Your task to perform on an android device: check android version Image 0: 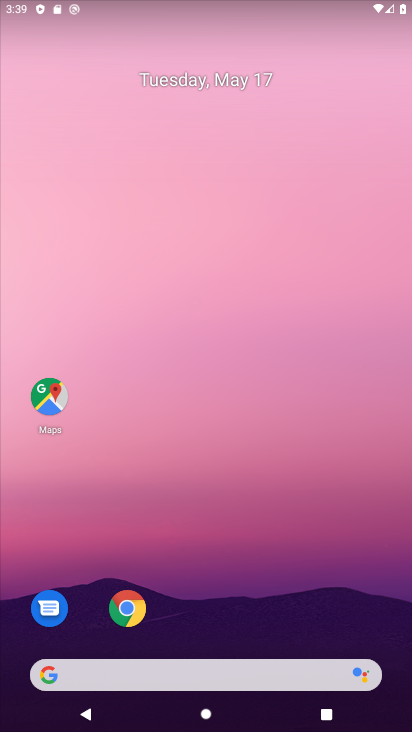
Step 0: click (130, 613)
Your task to perform on an android device: check android version Image 1: 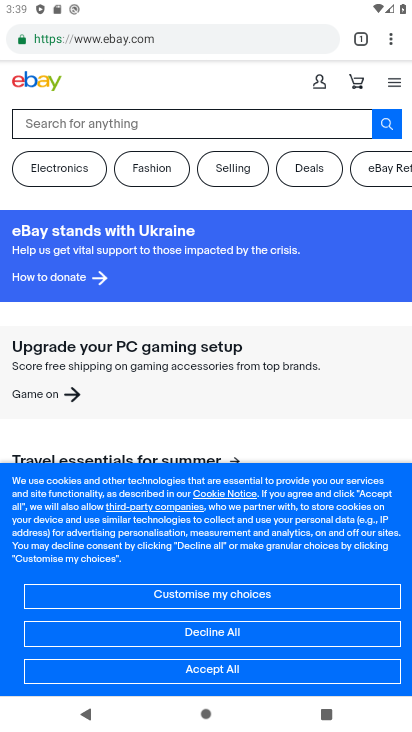
Step 1: press home button
Your task to perform on an android device: check android version Image 2: 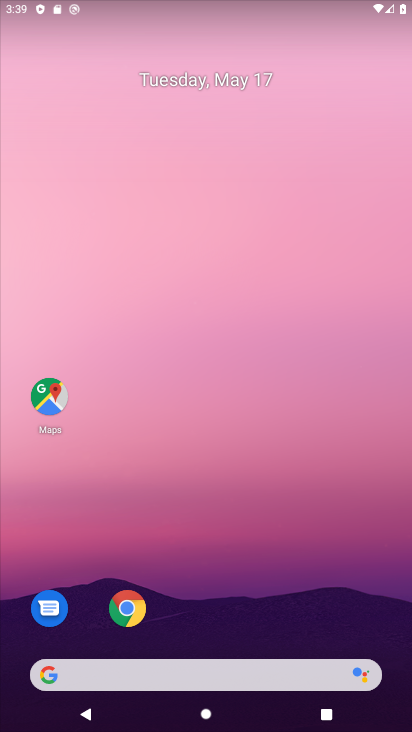
Step 2: drag from (208, 662) to (265, 209)
Your task to perform on an android device: check android version Image 3: 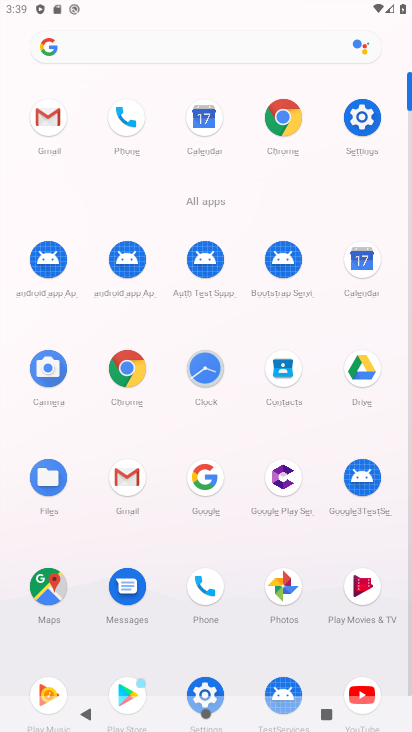
Step 3: click (356, 122)
Your task to perform on an android device: check android version Image 4: 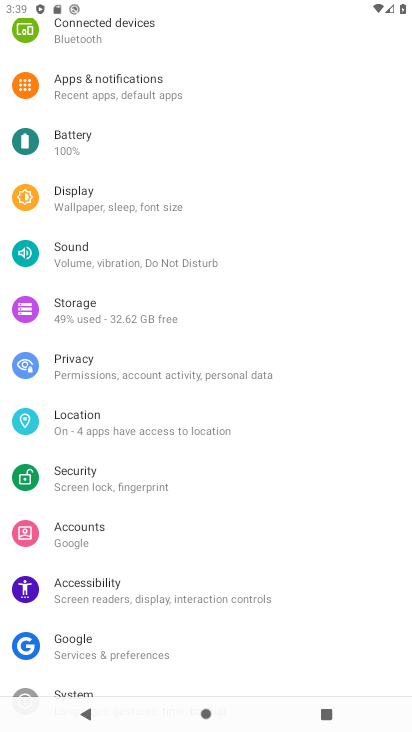
Step 4: drag from (181, 675) to (235, 283)
Your task to perform on an android device: check android version Image 5: 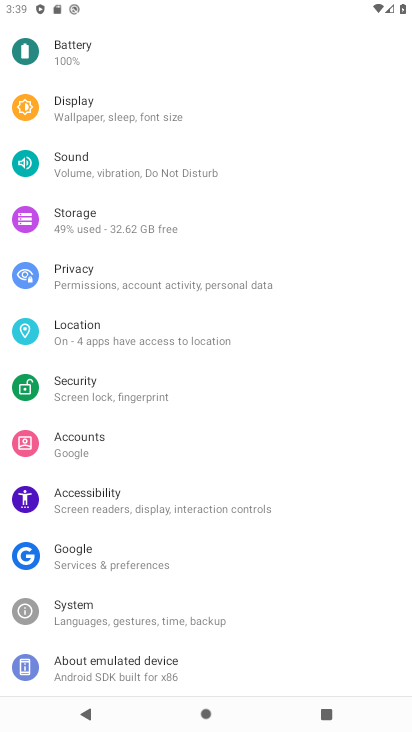
Step 5: click (122, 655)
Your task to perform on an android device: check android version Image 6: 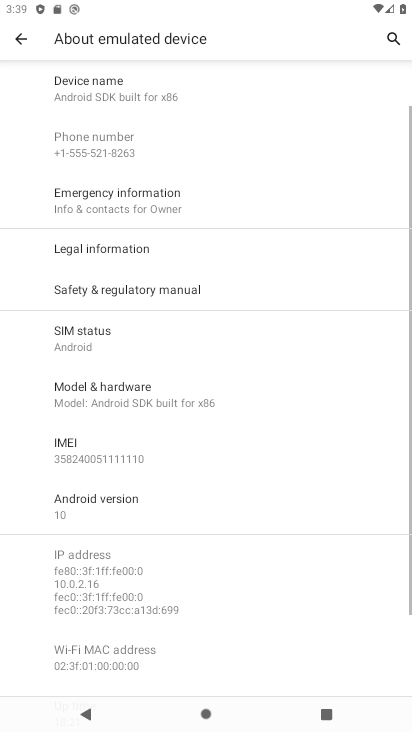
Step 6: click (102, 510)
Your task to perform on an android device: check android version Image 7: 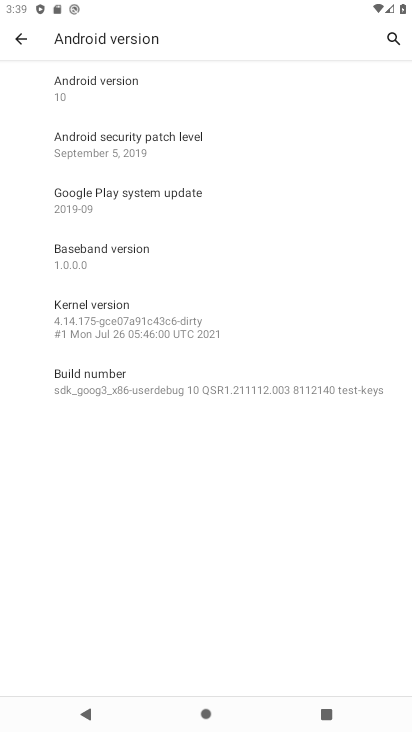
Step 7: task complete